Your task to perform on an android device: change alarm snooze length Image 0: 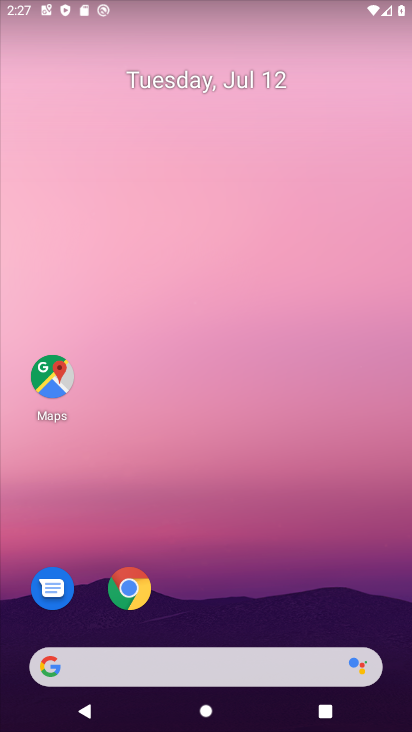
Step 0: drag from (159, 669) to (166, 110)
Your task to perform on an android device: change alarm snooze length Image 1: 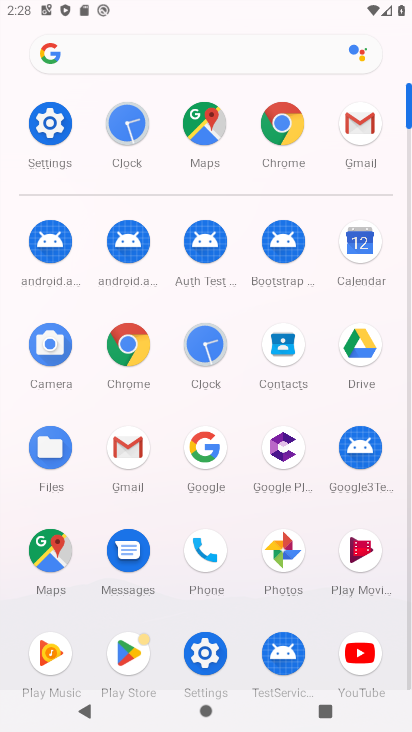
Step 1: click (213, 348)
Your task to perform on an android device: change alarm snooze length Image 2: 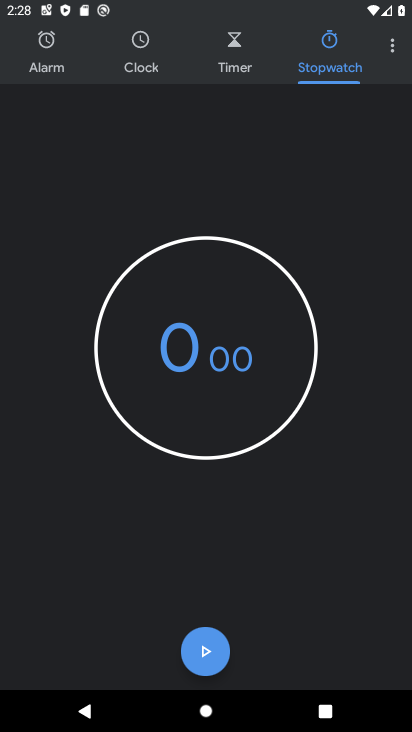
Step 2: click (392, 44)
Your task to perform on an android device: change alarm snooze length Image 3: 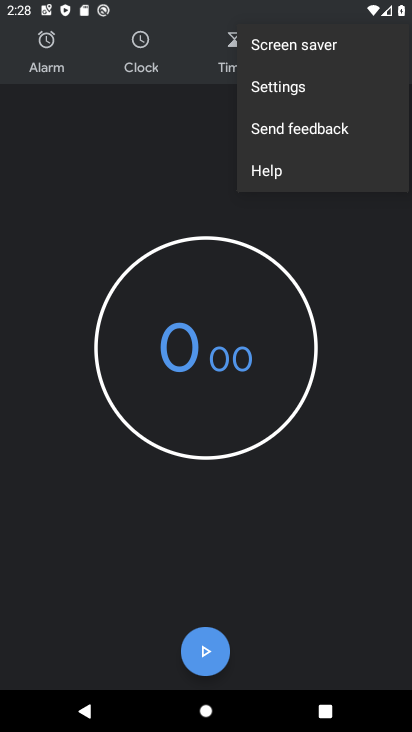
Step 3: click (286, 93)
Your task to perform on an android device: change alarm snooze length Image 4: 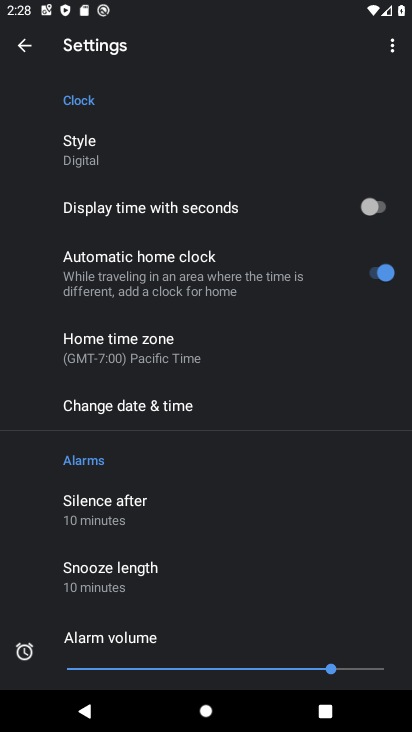
Step 4: click (148, 587)
Your task to perform on an android device: change alarm snooze length Image 5: 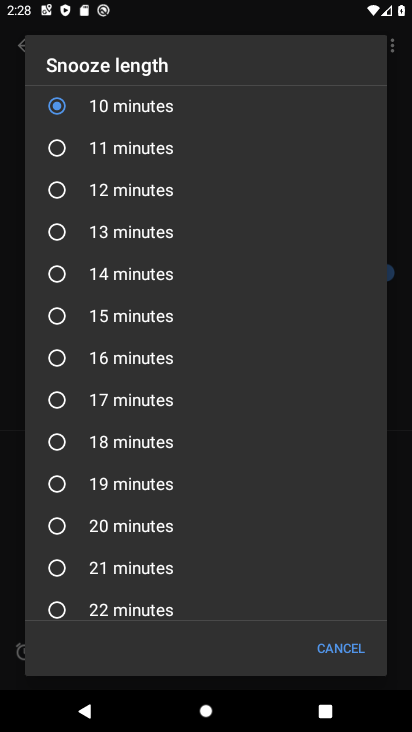
Step 5: click (111, 321)
Your task to perform on an android device: change alarm snooze length Image 6: 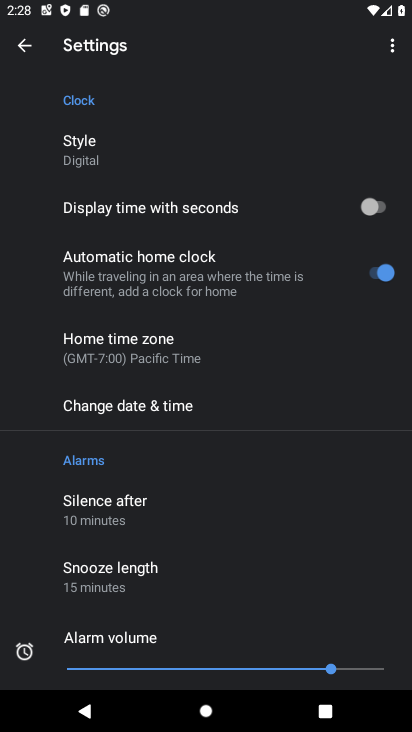
Step 6: task complete